Your task to perform on an android device: turn on bluetooth scan Image 0: 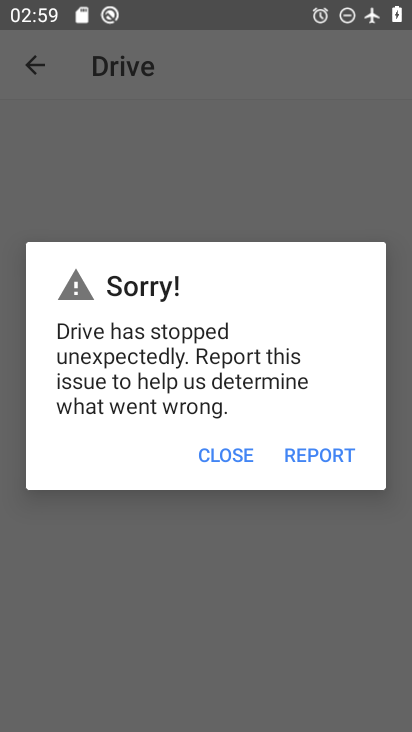
Step 0: press home button
Your task to perform on an android device: turn on bluetooth scan Image 1: 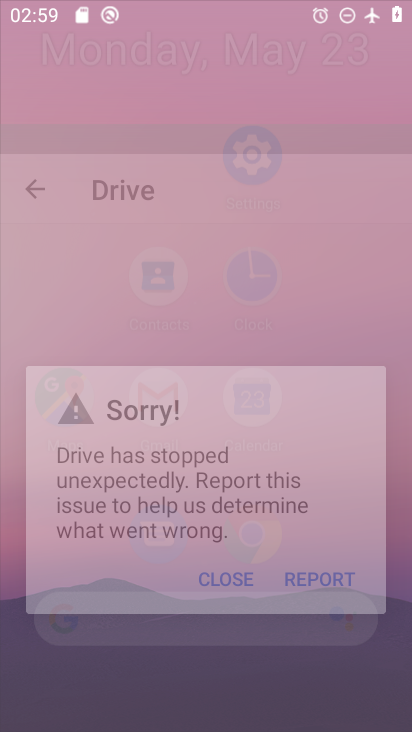
Step 1: press home button
Your task to perform on an android device: turn on bluetooth scan Image 2: 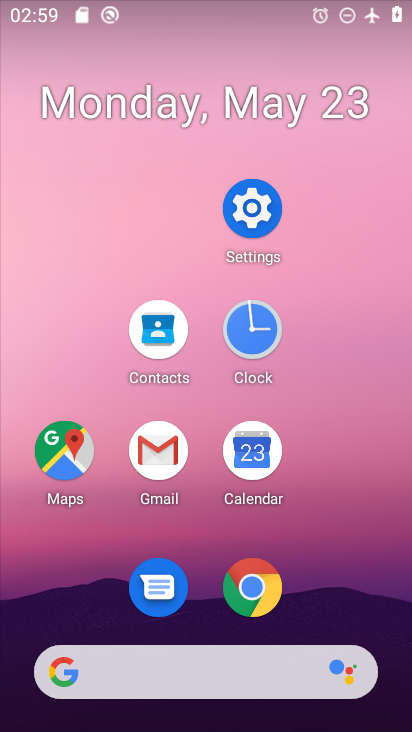
Step 2: click (273, 226)
Your task to perform on an android device: turn on bluetooth scan Image 3: 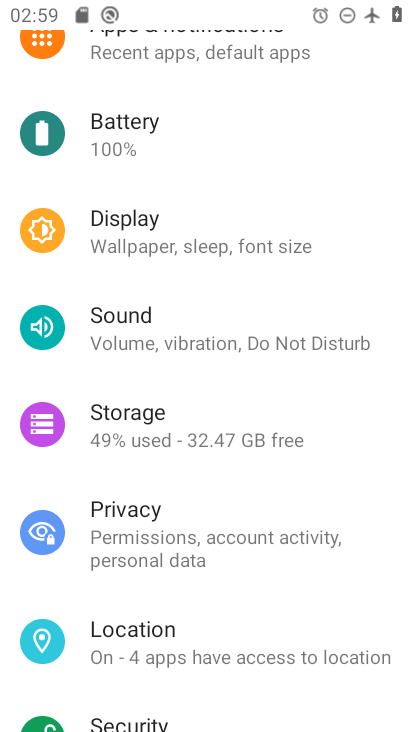
Step 3: drag from (154, 684) to (201, 384)
Your task to perform on an android device: turn on bluetooth scan Image 4: 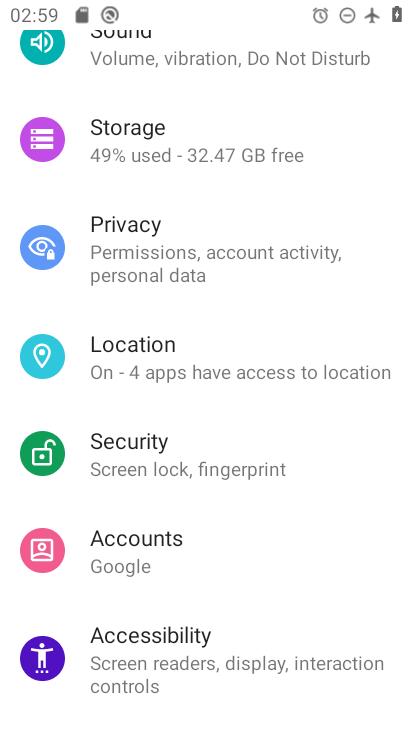
Step 4: click (215, 359)
Your task to perform on an android device: turn on bluetooth scan Image 5: 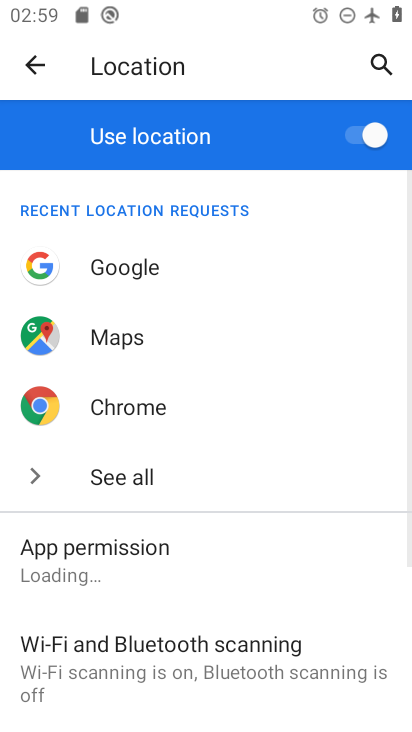
Step 5: click (187, 685)
Your task to perform on an android device: turn on bluetooth scan Image 6: 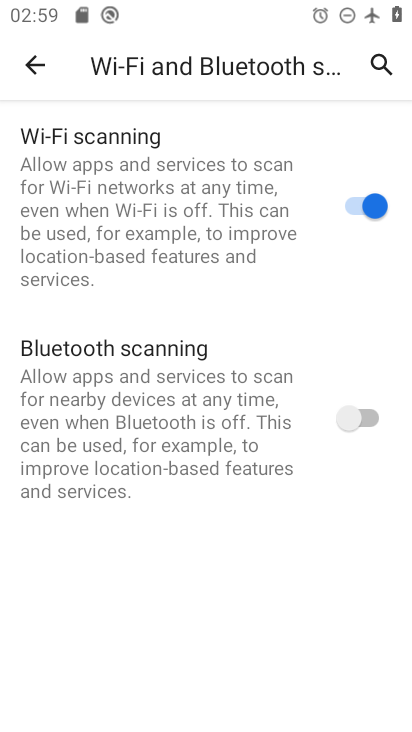
Step 6: click (368, 400)
Your task to perform on an android device: turn on bluetooth scan Image 7: 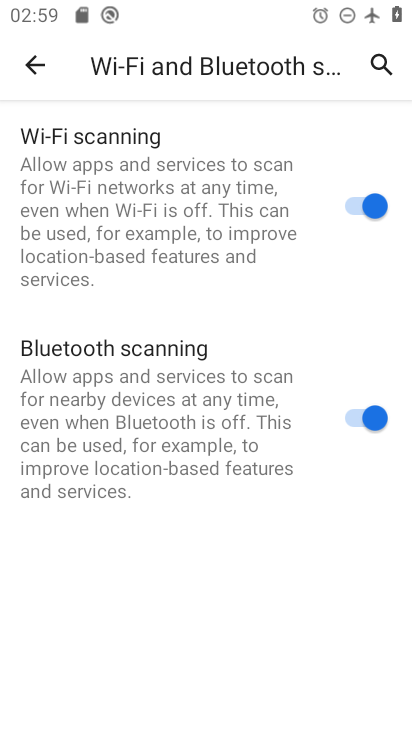
Step 7: task complete